Your task to perform on an android device: visit the assistant section in the google photos Image 0: 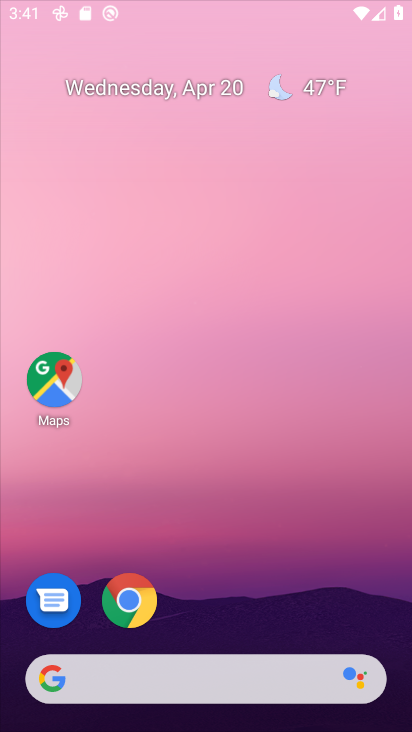
Step 0: drag from (298, 386) to (220, 42)
Your task to perform on an android device: visit the assistant section in the google photos Image 1: 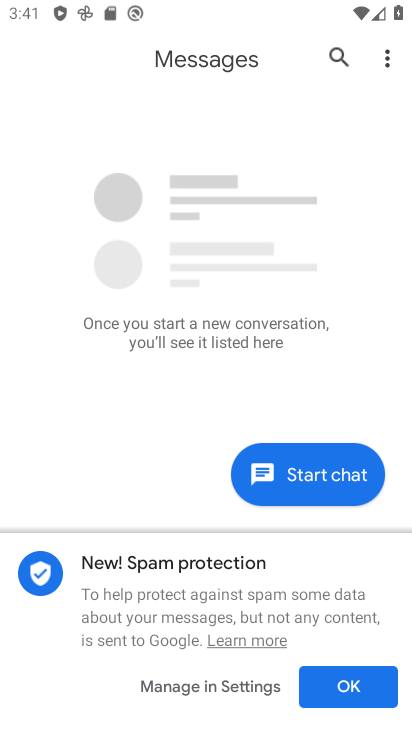
Step 1: press home button
Your task to perform on an android device: visit the assistant section in the google photos Image 2: 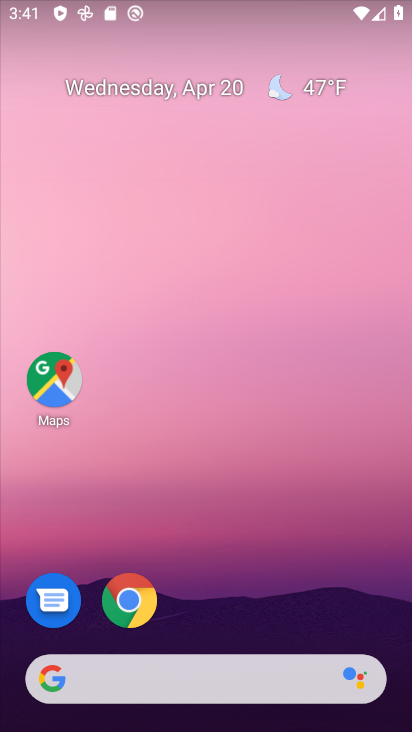
Step 2: drag from (315, 495) to (280, 71)
Your task to perform on an android device: visit the assistant section in the google photos Image 3: 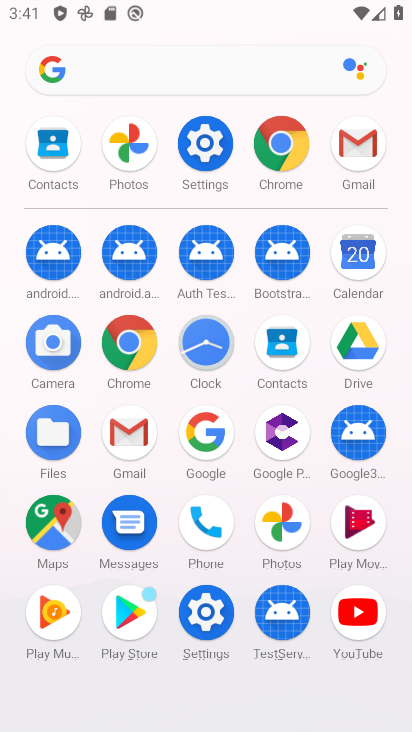
Step 3: click (96, 148)
Your task to perform on an android device: visit the assistant section in the google photos Image 4: 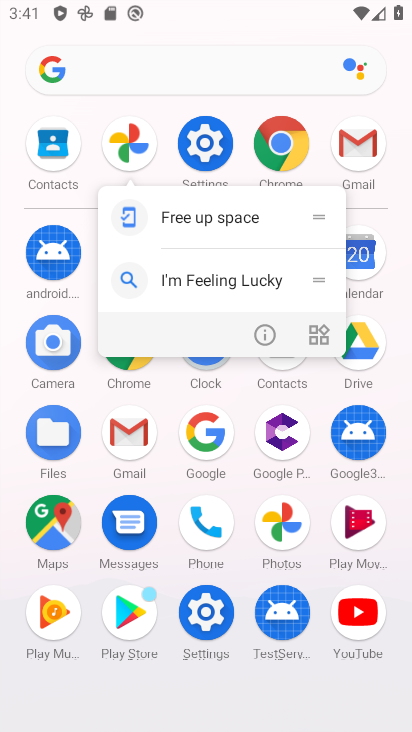
Step 4: click (97, 131)
Your task to perform on an android device: visit the assistant section in the google photos Image 5: 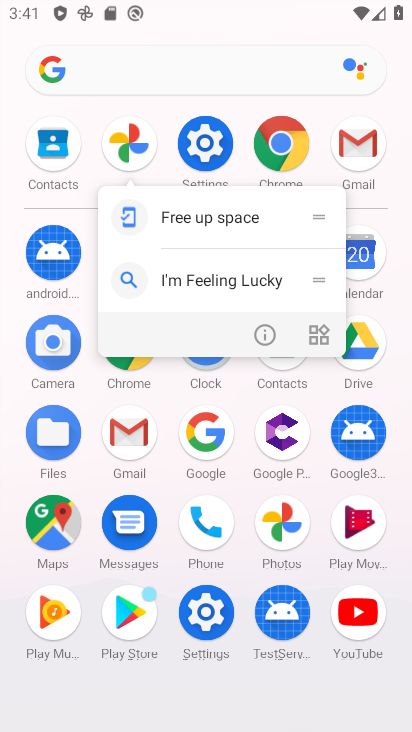
Step 5: click (97, 131)
Your task to perform on an android device: visit the assistant section in the google photos Image 6: 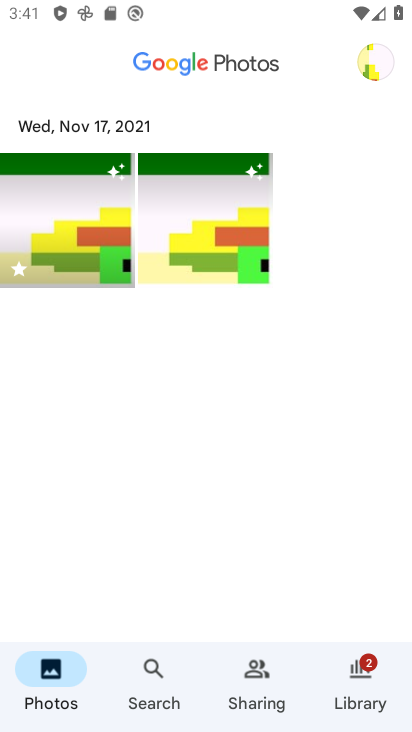
Step 6: task complete